Your task to perform on an android device: Go to notification settings Image 0: 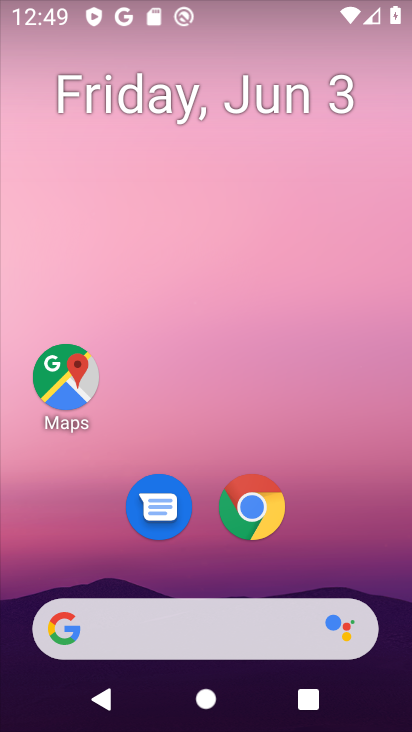
Step 0: drag from (400, 60) to (246, 76)
Your task to perform on an android device: Go to notification settings Image 1: 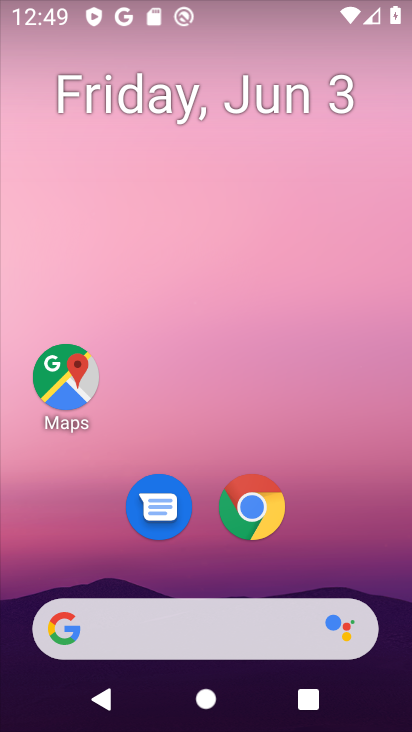
Step 1: drag from (319, 470) to (312, 84)
Your task to perform on an android device: Go to notification settings Image 2: 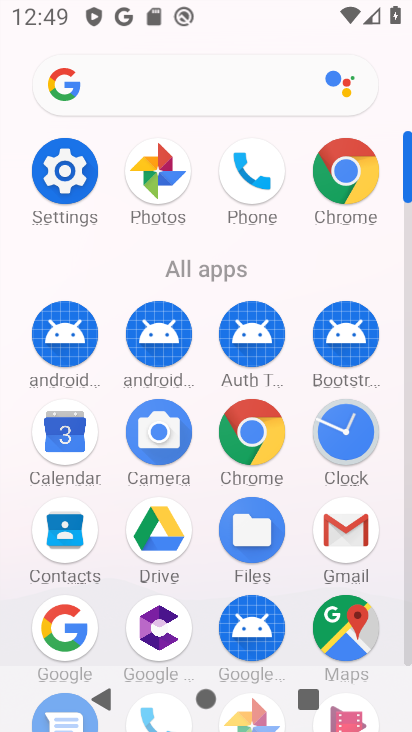
Step 2: click (63, 177)
Your task to perform on an android device: Go to notification settings Image 3: 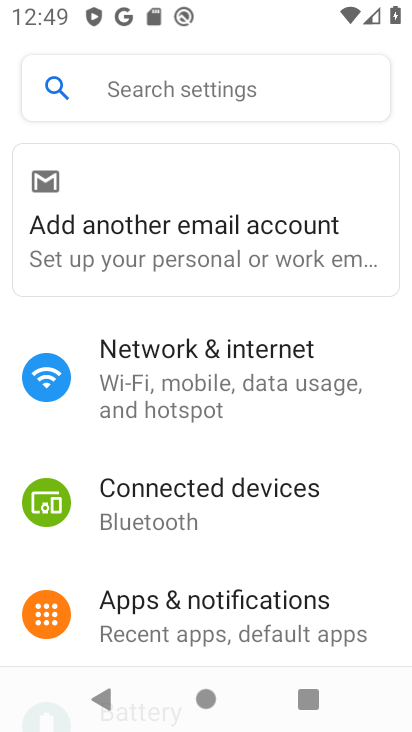
Step 3: click (257, 607)
Your task to perform on an android device: Go to notification settings Image 4: 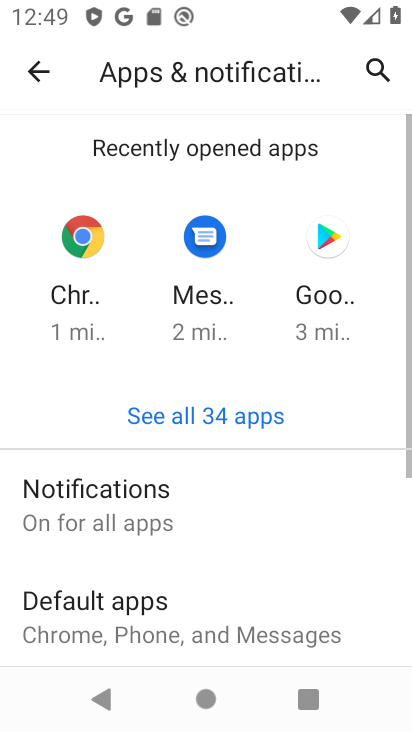
Step 4: click (191, 509)
Your task to perform on an android device: Go to notification settings Image 5: 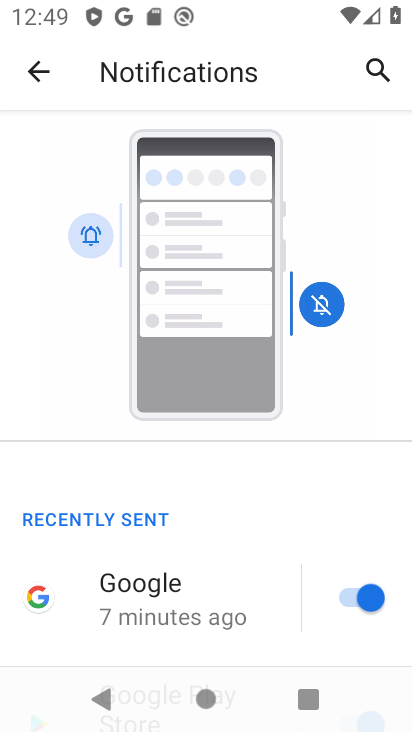
Step 5: task complete